Your task to perform on an android device: turn off notifications in google photos Image 0: 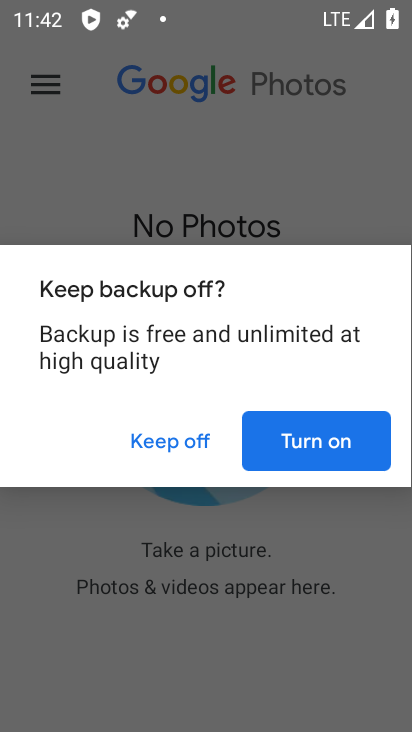
Step 0: press home button
Your task to perform on an android device: turn off notifications in google photos Image 1: 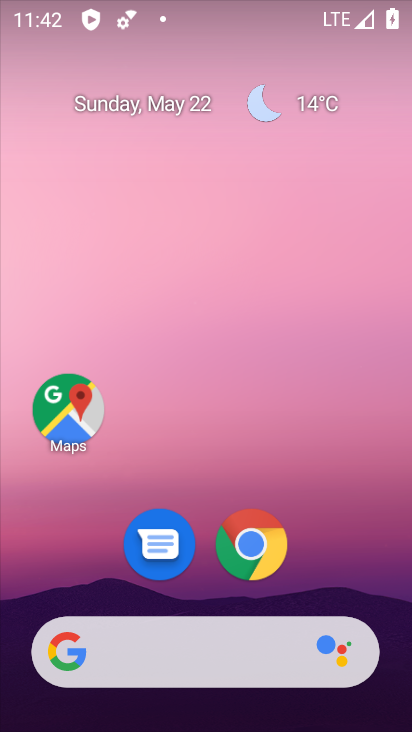
Step 1: drag from (312, 576) to (223, 91)
Your task to perform on an android device: turn off notifications in google photos Image 2: 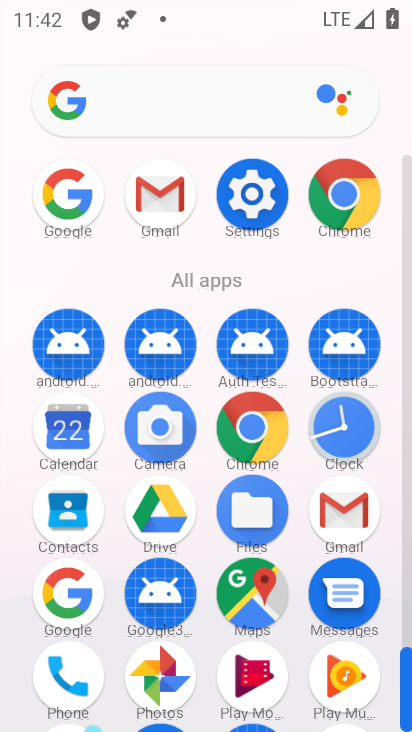
Step 2: drag from (301, 282) to (287, 563)
Your task to perform on an android device: turn off notifications in google photos Image 3: 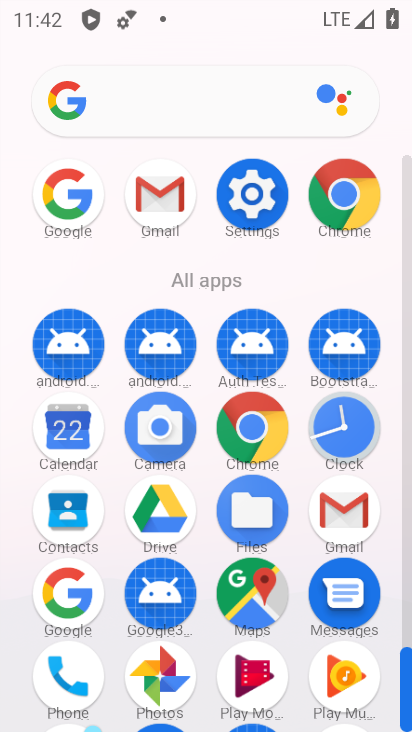
Step 3: drag from (228, 630) to (257, 339)
Your task to perform on an android device: turn off notifications in google photos Image 4: 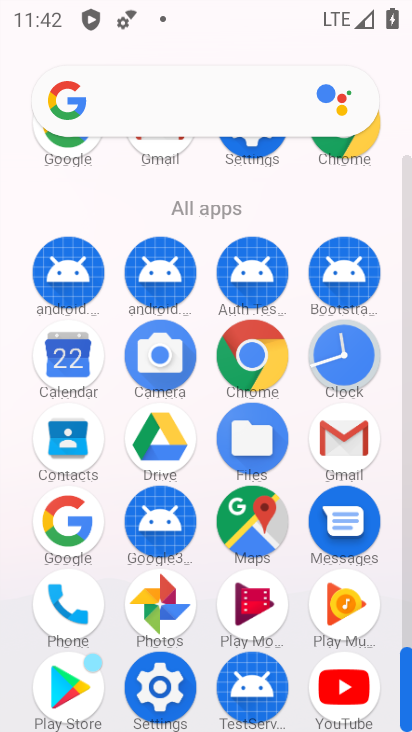
Step 4: drag from (266, 319) to (246, 571)
Your task to perform on an android device: turn off notifications in google photos Image 5: 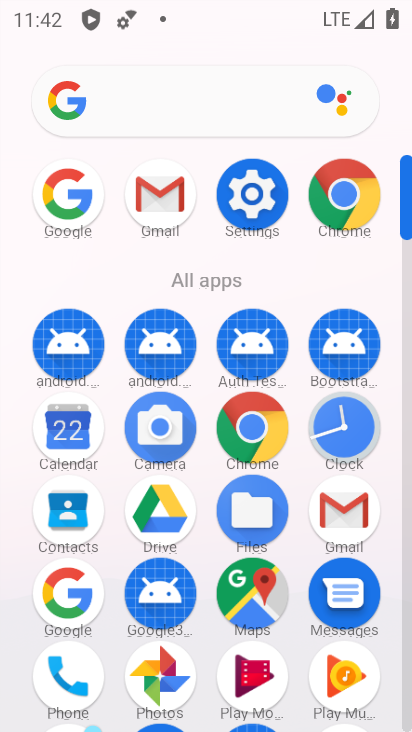
Step 5: drag from (261, 561) to (261, 354)
Your task to perform on an android device: turn off notifications in google photos Image 6: 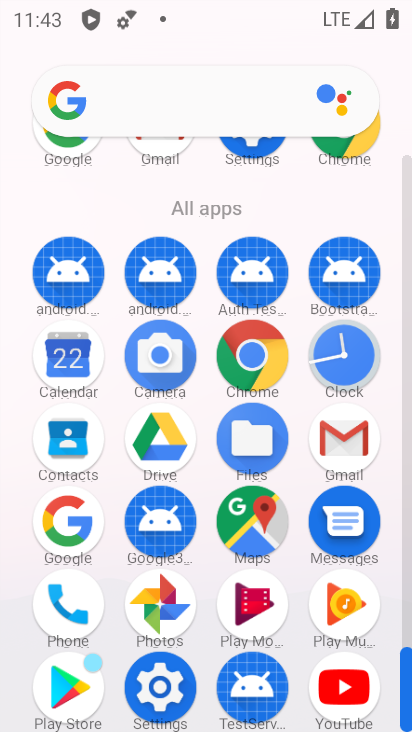
Step 6: drag from (306, 336) to (285, 572)
Your task to perform on an android device: turn off notifications in google photos Image 7: 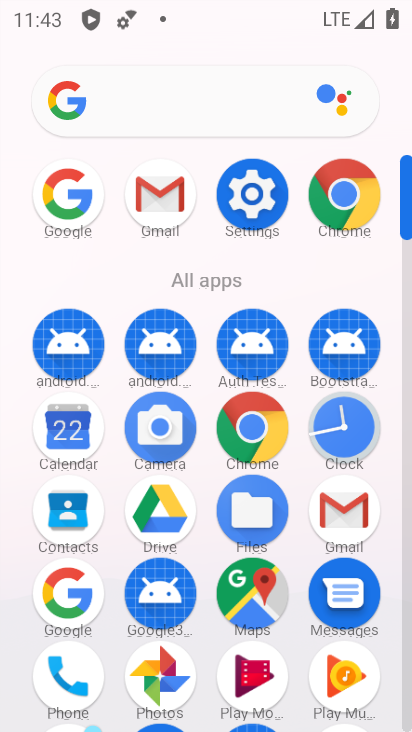
Step 7: drag from (171, 631) to (172, 397)
Your task to perform on an android device: turn off notifications in google photos Image 8: 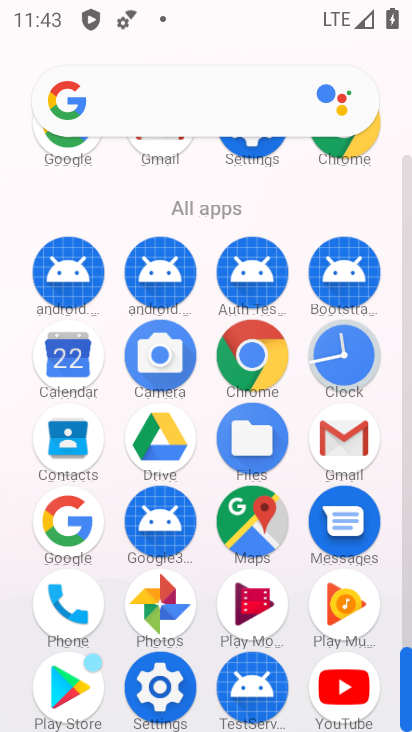
Step 8: drag from (203, 323) to (190, 562)
Your task to perform on an android device: turn off notifications in google photos Image 9: 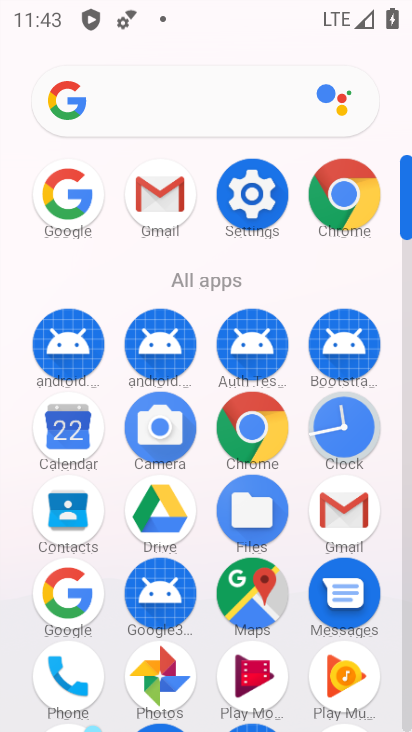
Step 9: drag from (196, 661) to (225, 443)
Your task to perform on an android device: turn off notifications in google photos Image 10: 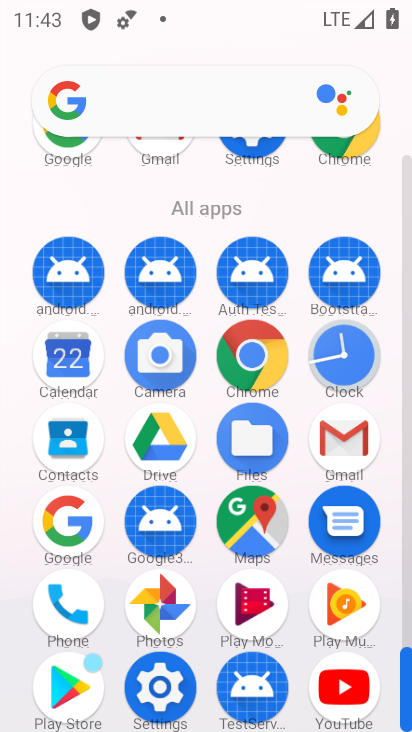
Step 10: click (154, 621)
Your task to perform on an android device: turn off notifications in google photos Image 11: 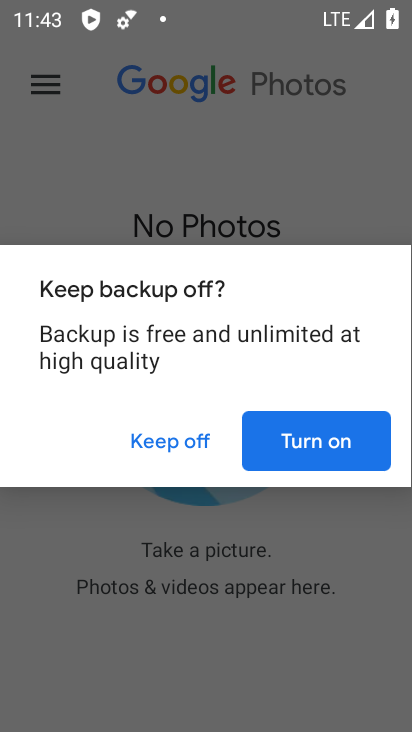
Step 11: press home button
Your task to perform on an android device: turn off notifications in google photos Image 12: 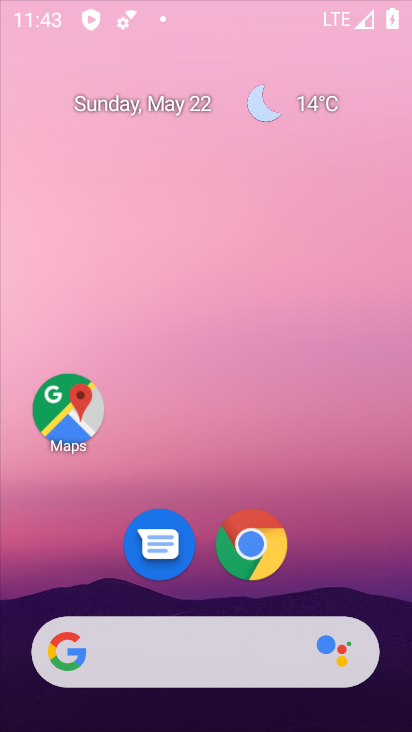
Step 12: drag from (292, 595) to (301, 215)
Your task to perform on an android device: turn off notifications in google photos Image 13: 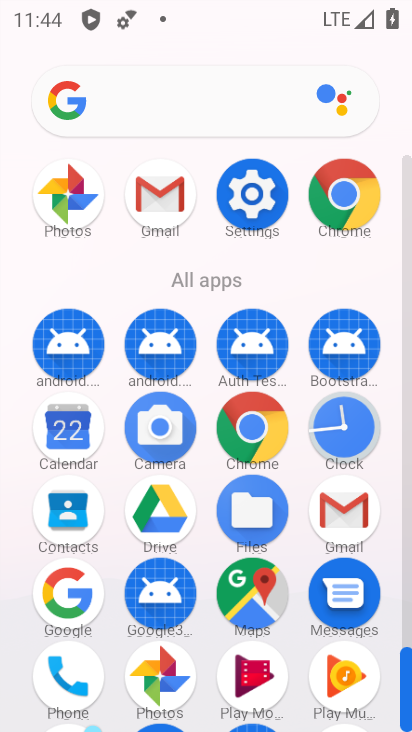
Step 13: press home button
Your task to perform on an android device: turn off notifications in google photos Image 14: 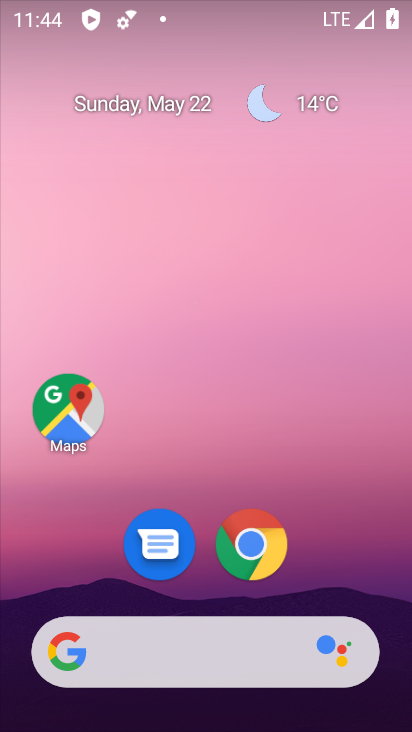
Step 14: drag from (313, 576) to (273, 123)
Your task to perform on an android device: turn off notifications in google photos Image 15: 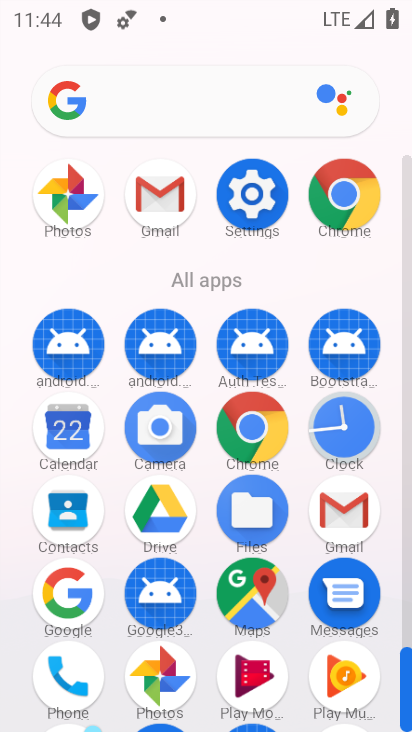
Step 15: drag from (203, 680) to (198, 431)
Your task to perform on an android device: turn off notifications in google photos Image 16: 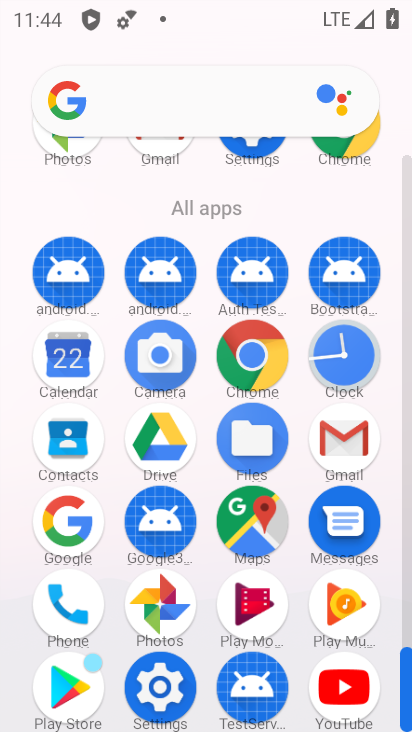
Step 16: drag from (206, 336) to (178, 521)
Your task to perform on an android device: turn off notifications in google photos Image 17: 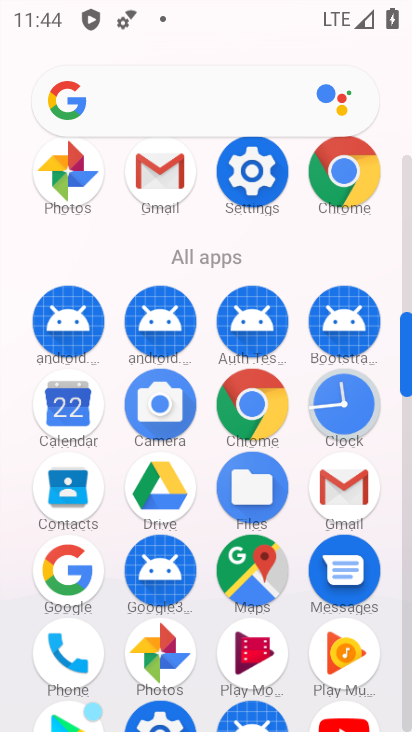
Step 17: drag from (192, 627) to (196, 358)
Your task to perform on an android device: turn off notifications in google photos Image 18: 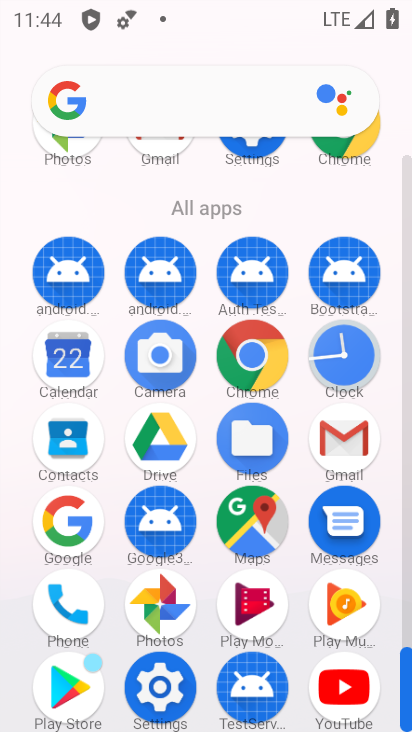
Step 18: click (162, 606)
Your task to perform on an android device: turn off notifications in google photos Image 19: 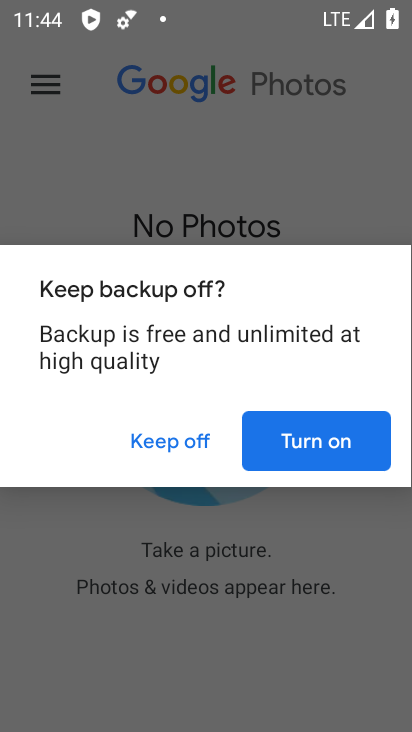
Step 19: click (285, 455)
Your task to perform on an android device: turn off notifications in google photos Image 20: 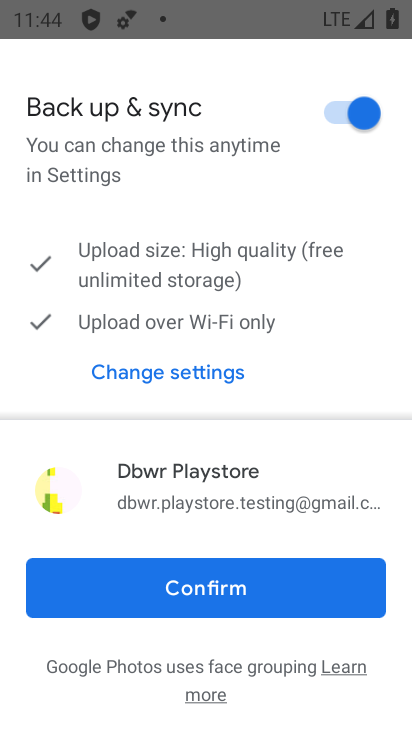
Step 20: click (243, 592)
Your task to perform on an android device: turn off notifications in google photos Image 21: 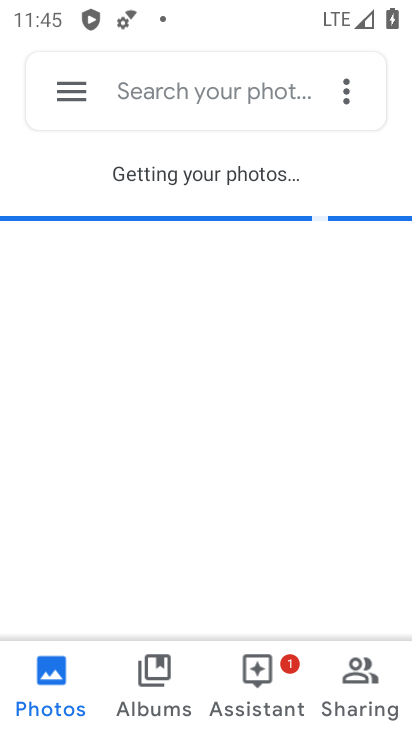
Step 21: click (60, 94)
Your task to perform on an android device: turn off notifications in google photos Image 22: 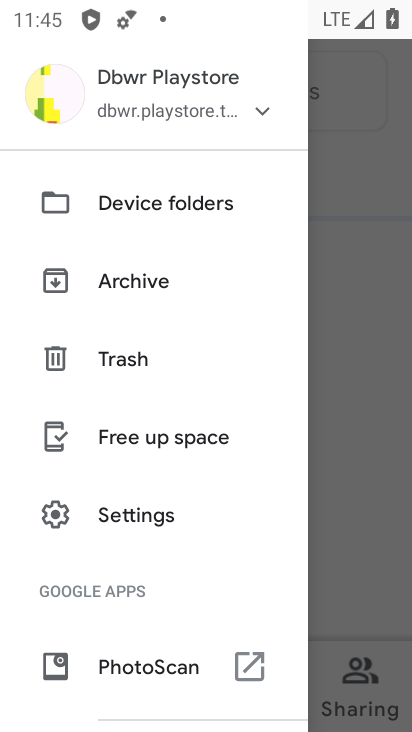
Step 22: click (126, 509)
Your task to perform on an android device: turn off notifications in google photos Image 23: 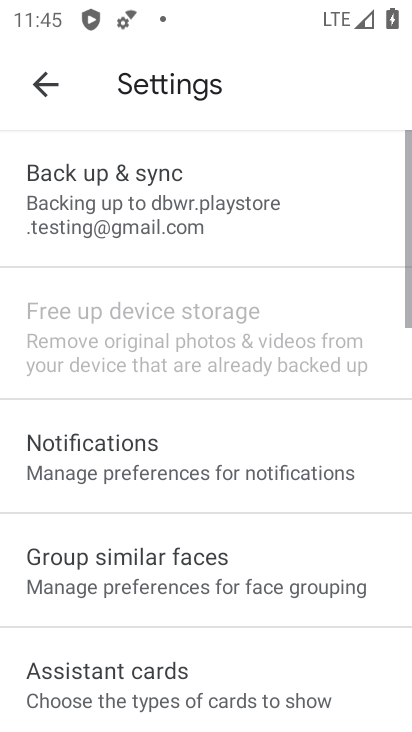
Step 23: click (120, 452)
Your task to perform on an android device: turn off notifications in google photos Image 24: 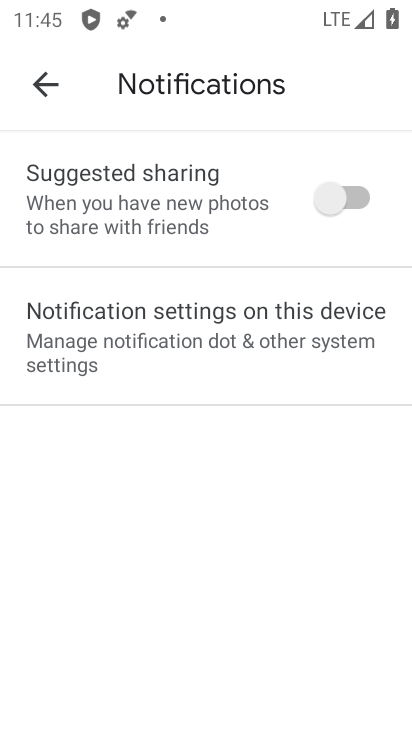
Step 24: task complete